Your task to perform on an android device: Open eBay Image 0: 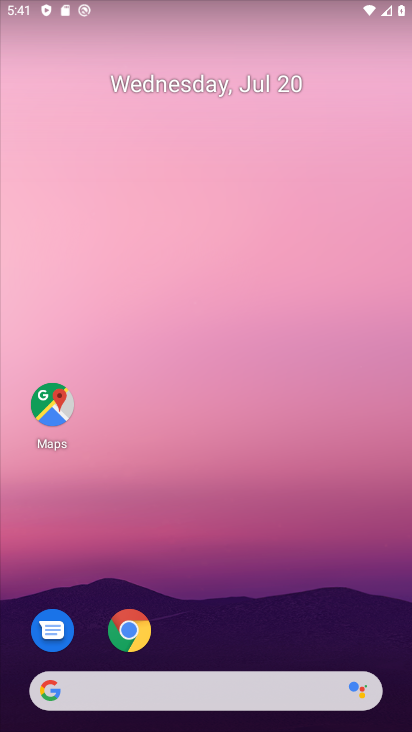
Step 0: drag from (230, 688) to (247, 38)
Your task to perform on an android device: Open eBay Image 1: 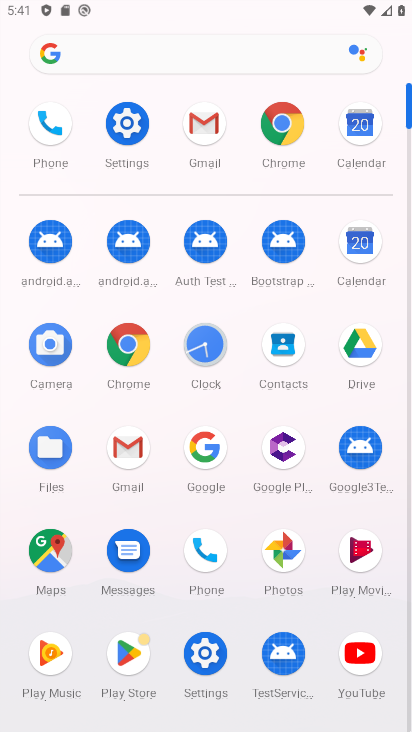
Step 1: click (120, 343)
Your task to perform on an android device: Open eBay Image 2: 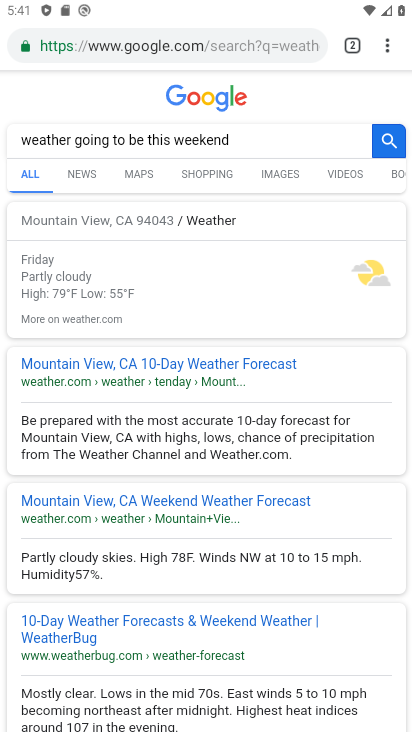
Step 2: drag from (392, 35) to (334, 86)
Your task to perform on an android device: Open eBay Image 3: 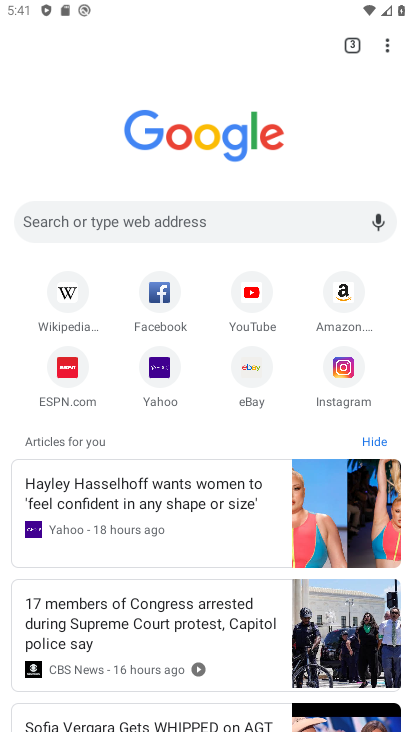
Step 3: click (249, 365)
Your task to perform on an android device: Open eBay Image 4: 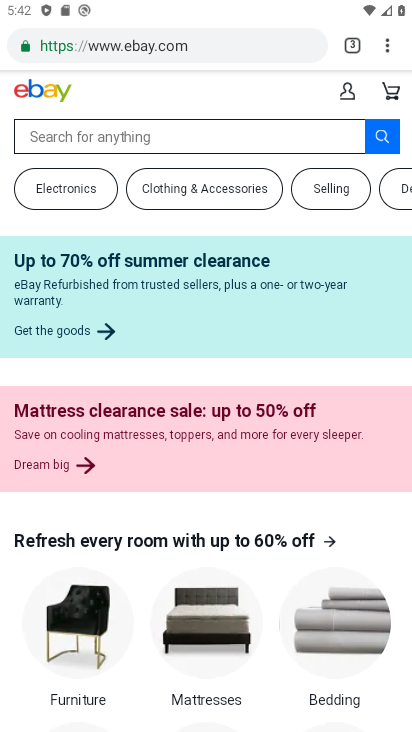
Step 4: task complete